Your task to perform on an android device: Open Google Chrome and click the shortcut for Amazon.com Image 0: 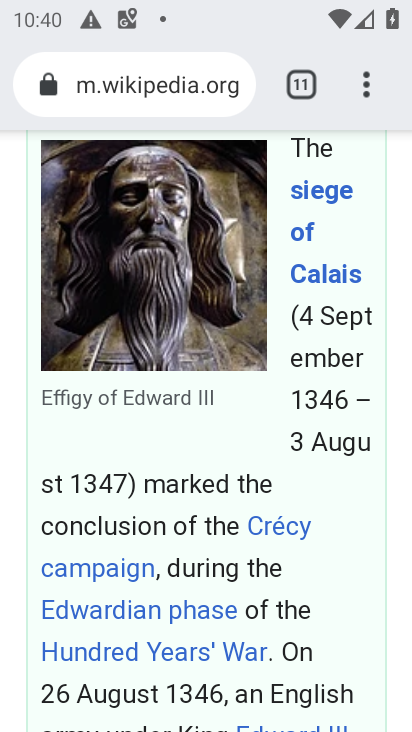
Step 0: press home button
Your task to perform on an android device: Open Google Chrome and click the shortcut for Amazon.com Image 1: 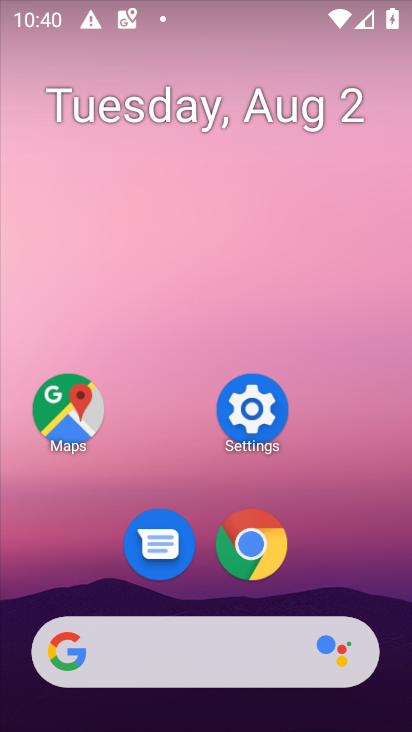
Step 1: click (249, 541)
Your task to perform on an android device: Open Google Chrome and click the shortcut for Amazon.com Image 2: 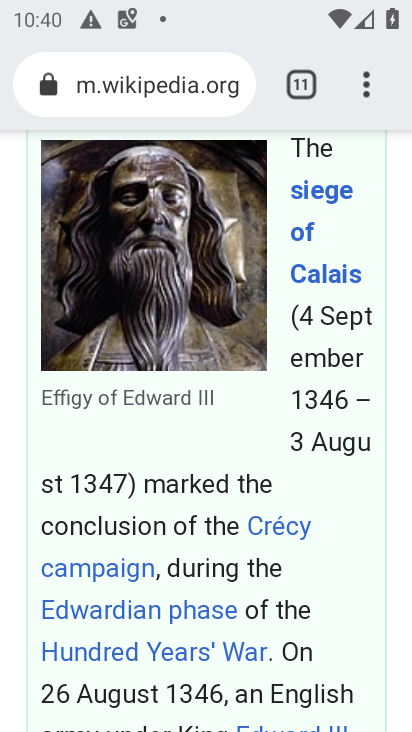
Step 2: drag from (365, 80) to (138, 169)
Your task to perform on an android device: Open Google Chrome and click the shortcut for Amazon.com Image 3: 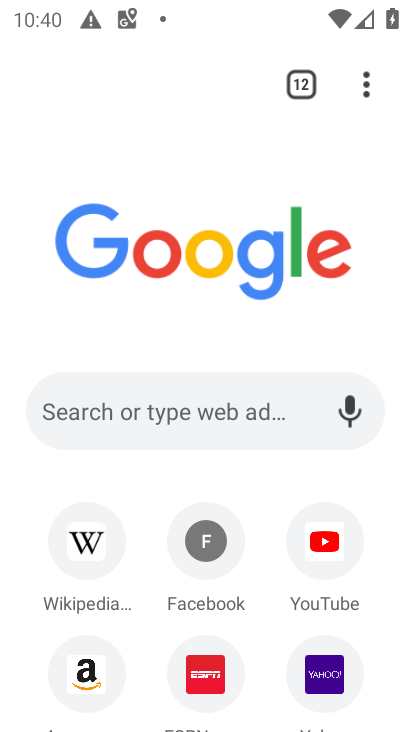
Step 3: drag from (159, 483) to (255, 202)
Your task to perform on an android device: Open Google Chrome and click the shortcut for Amazon.com Image 4: 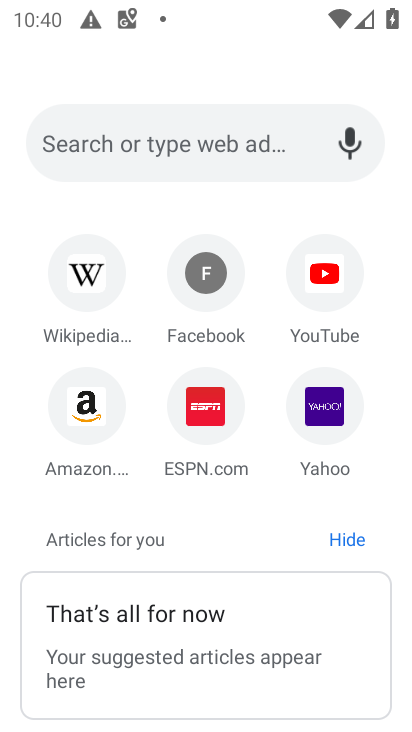
Step 4: click (84, 401)
Your task to perform on an android device: Open Google Chrome and click the shortcut for Amazon.com Image 5: 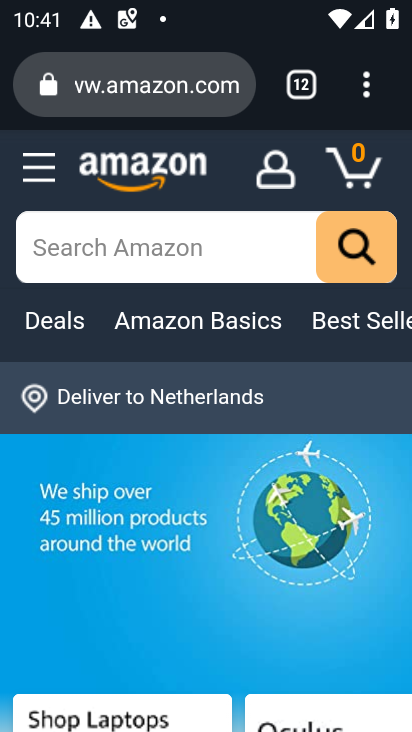
Step 5: task complete